Your task to perform on an android device: turn on translation in the chrome app Image 0: 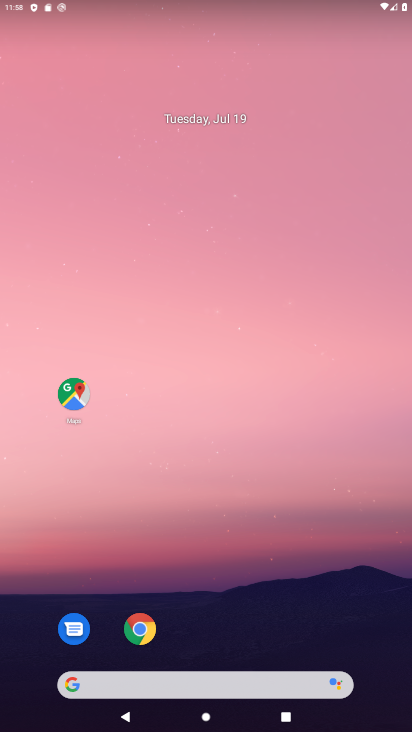
Step 0: drag from (227, 402) to (13, 75)
Your task to perform on an android device: turn on translation in the chrome app Image 1: 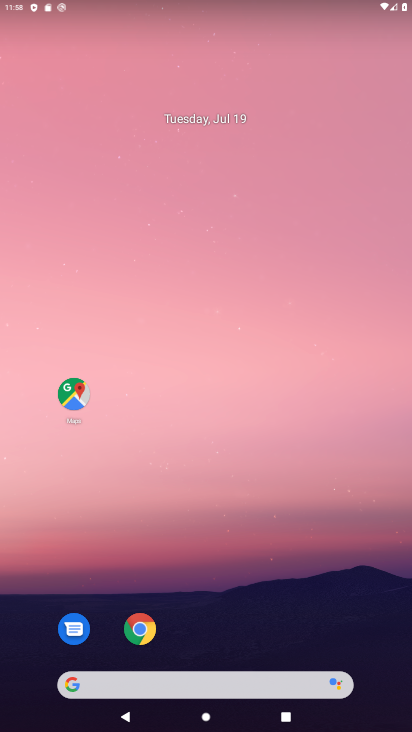
Step 1: drag from (200, 624) to (225, 108)
Your task to perform on an android device: turn on translation in the chrome app Image 2: 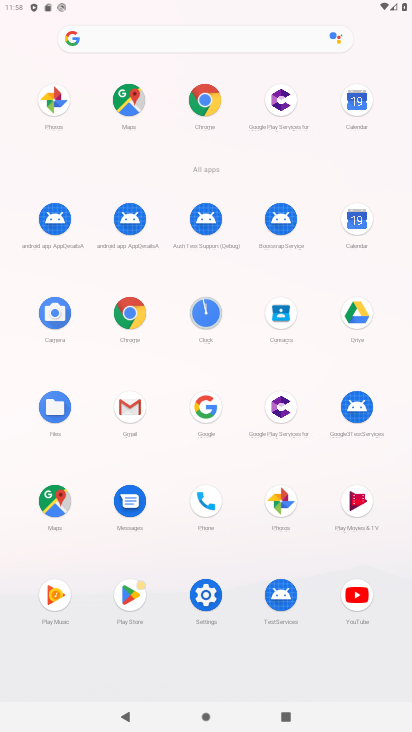
Step 2: click (205, 101)
Your task to perform on an android device: turn on translation in the chrome app Image 3: 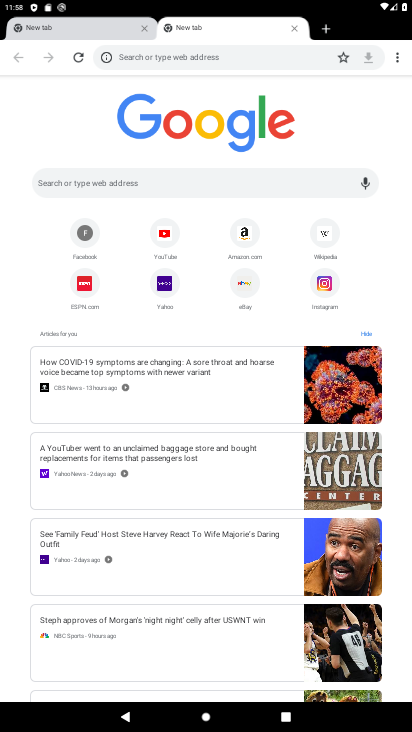
Step 3: drag from (400, 62) to (296, 259)
Your task to perform on an android device: turn on translation in the chrome app Image 4: 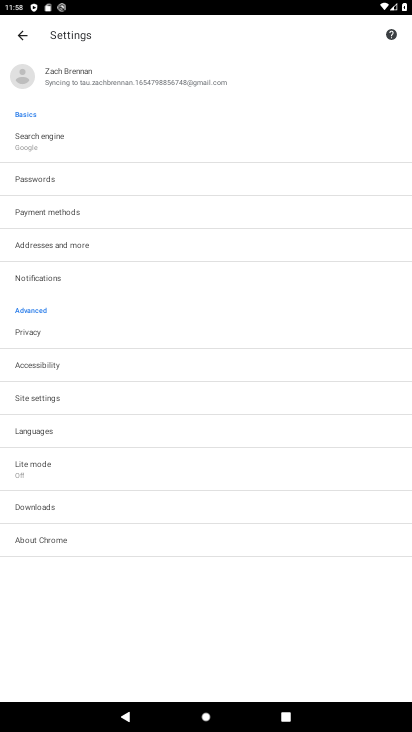
Step 4: click (65, 429)
Your task to perform on an android device: turn on translation in the chrome app Image 5: 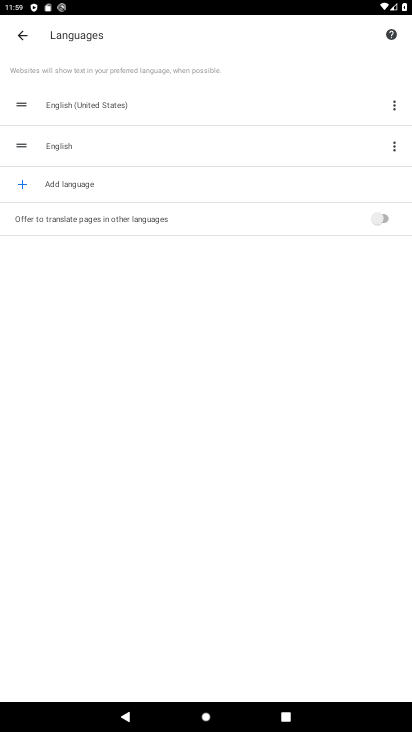
Step 5: click (331, 215)
Your task to perform on an android device: turn on translation in the chrome app Image 6: 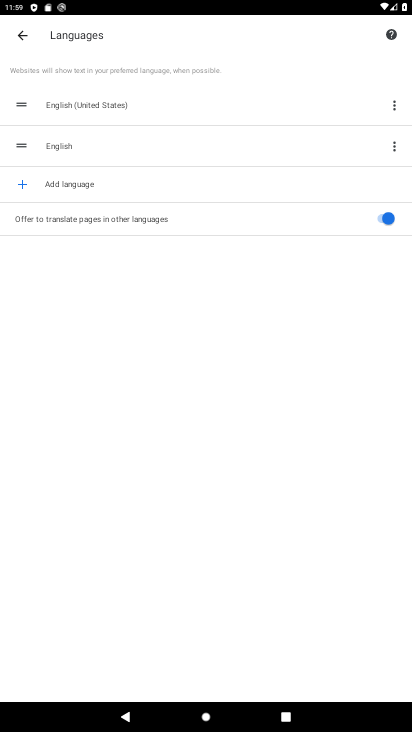
Step 6: task complete